Your task to perform on an android device: Search for bose quietcomfort 35 on target, select the first entry, add it to the cart, then select checkout. Image 0: 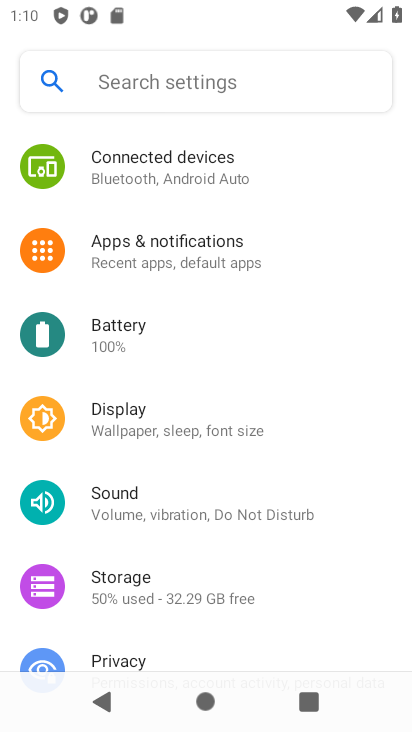
Step 0: press home button
Your task to perform on an android device: Search for bose quietcomfort 35 on target, select the first entry, add it to the cart, then select checkout. Image 1: 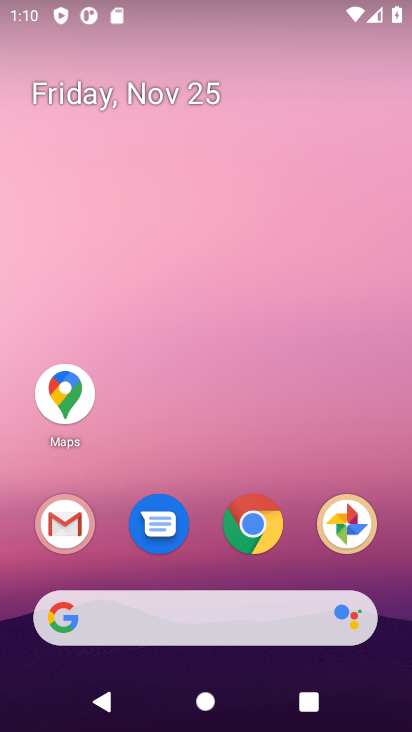
Step 1: click (253, 533)
Your task to perform on an android device: Search for bose quietcomfort 35 on target, select the first entry, add it to the cart, then select checkout. Image 2: 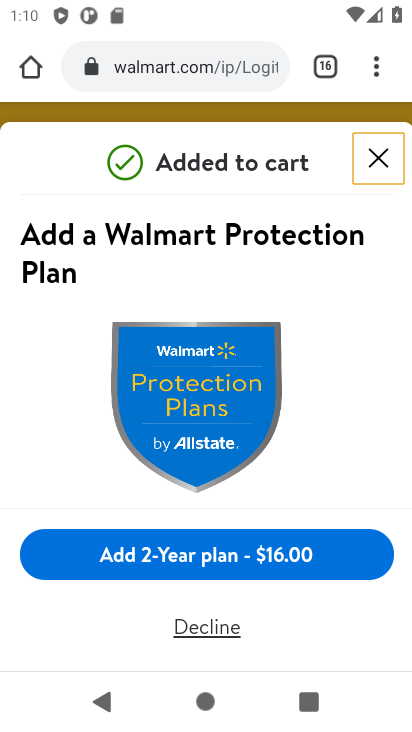
Step 2: click (170, 69)
Your task to perform on an android device: Search for bose quietcomfort 35 on target, select the first entry, add it to the cart, then select checkout. Image 3: 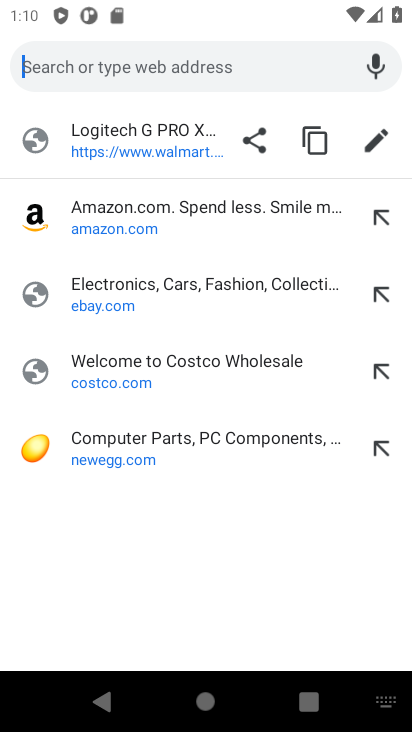
Step 3: type "target.com"
Your task to perform on an android device: Search for bose quietcomfort 35 on target, select the first entry, add it to the cart, then select checkout. Image 4: 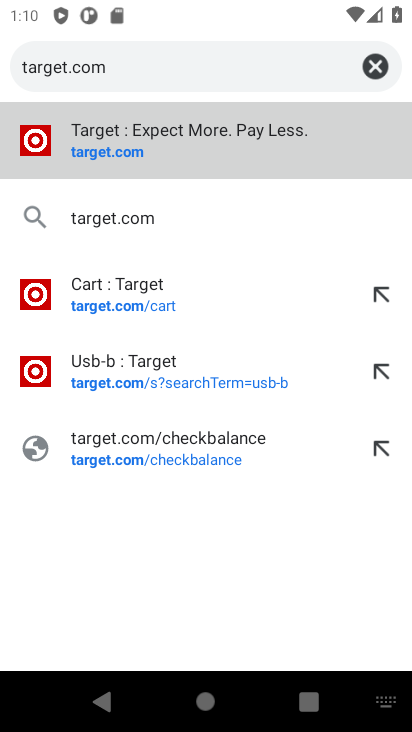
Step 4: click (80, 159)
Your task to perform on an android device: Search for bose quietcomfort 35 on target, select the first entry, add it to the cart, then select checkout. Image 5: 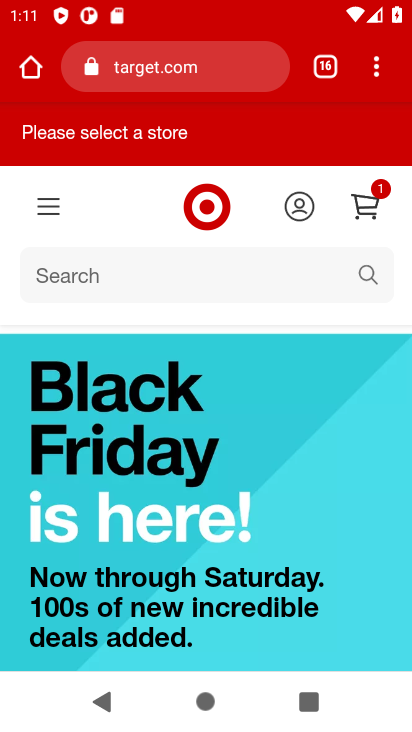
Step 5: click (367, 273)
Your task to perform on an android device: Search for bose quietcomfort 35 on target, select the first entry, add it to the cart, then select checkout. Image 6: 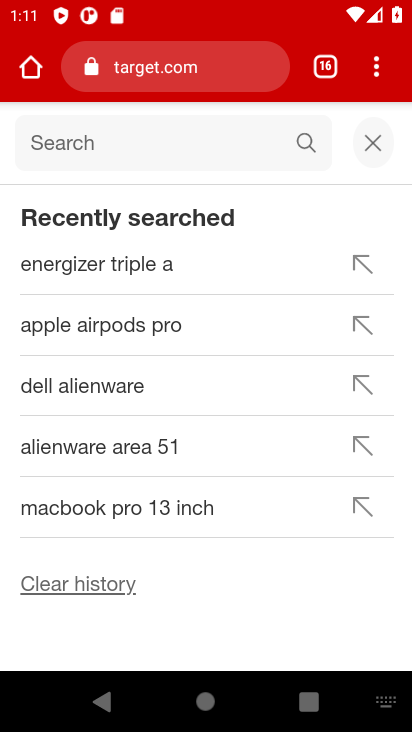
Step 6: type "bose quietcomfort 35"
Your task to perform on an android device: Search for bose quietcomfort 35 on target, select the first entry, add it to the cart, then select checkout. Image 7: 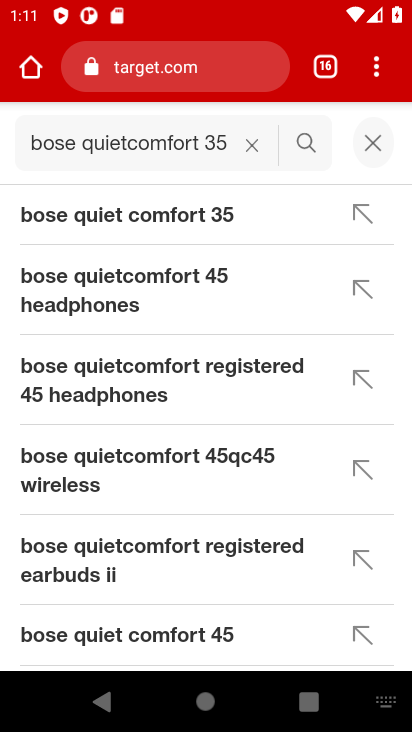
Step 7: click (106, 214)
Your task to perform on an android device: Search for bose quietcomfort 35 on target, select the first entry, add it to the cart, then select checkout. Image 8: 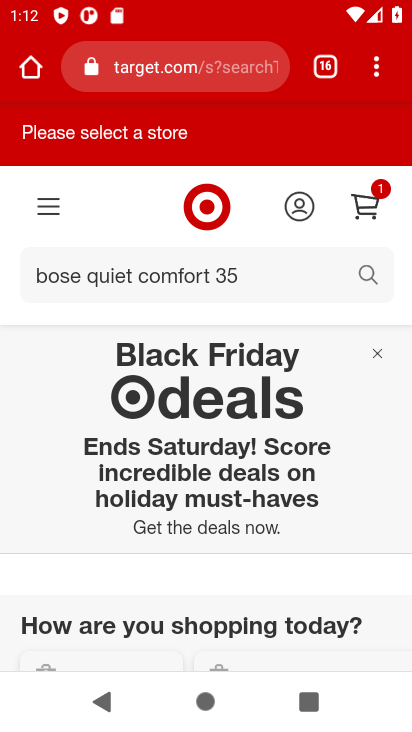
Step 8: task complete